Your task to perform on an android device: Open ESPN.com Image 0: 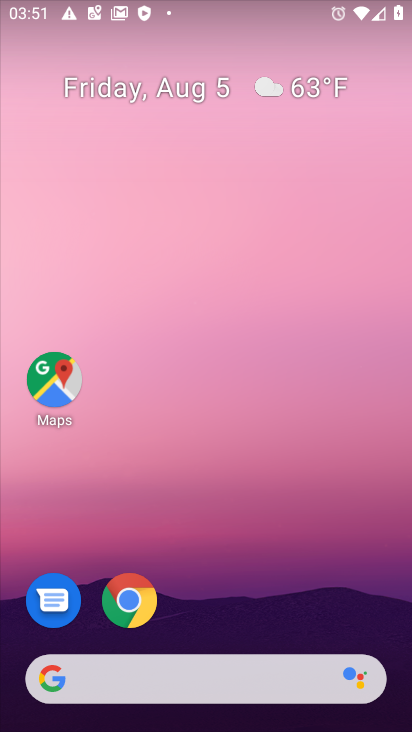
Step 0: click (133, 595)
Your task to perform on an android device: Open ESPN.com Image 1: 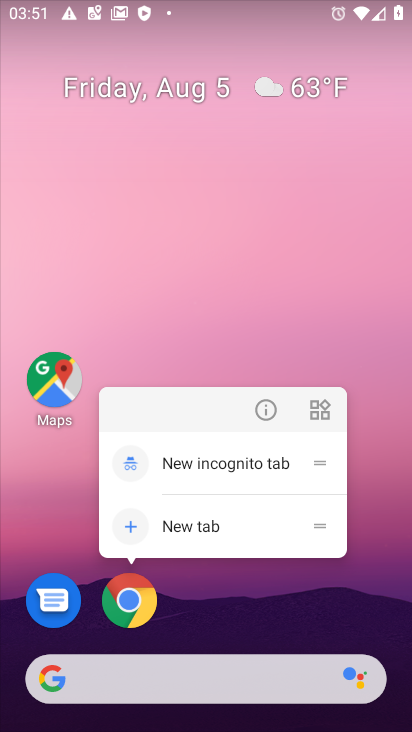
Step 1: click (133, 595)
Your task to perform on an android device: Open ESPN.com Image 2: 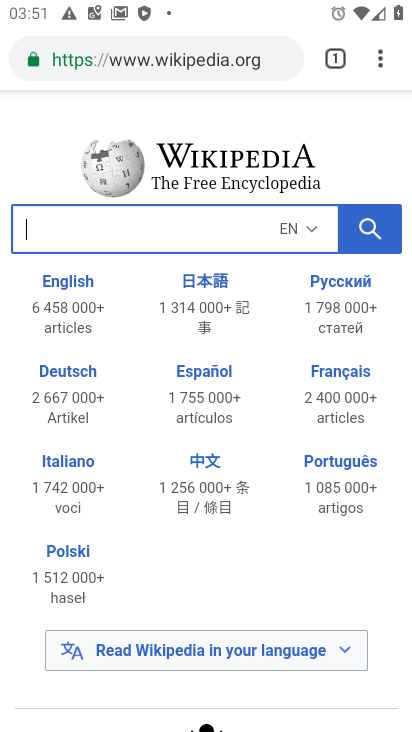
Step 2: click (266, 62)
Your task to perform on an android device: Open ESPN.com Image 3: 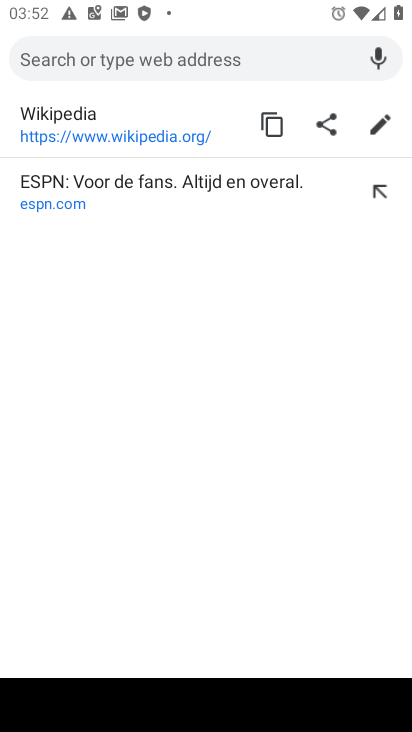
Step 3: click (129, 186)
Your task to perform on an android device: Open ESPN.com Image 4: 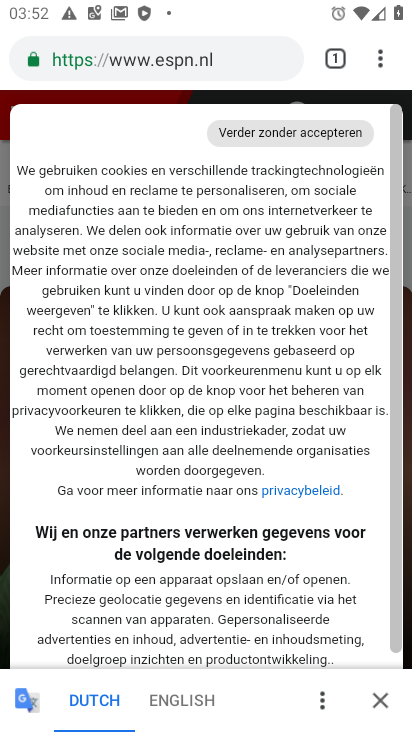
Step 4: task complete